Your task to perform on an android device: Go to location settings Image 0: 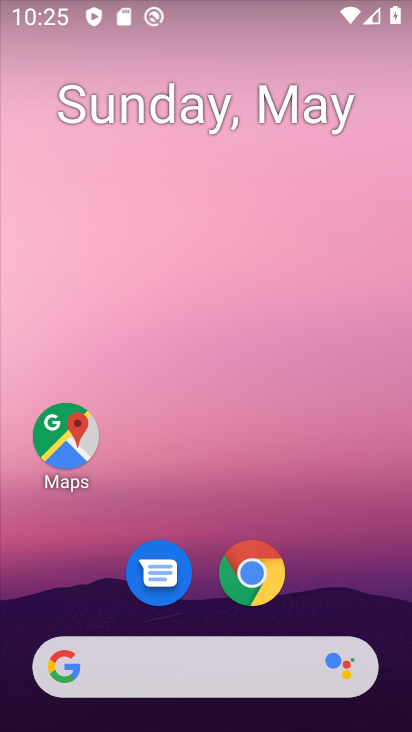
Step 0: drag from (331, 521) to (266, 76)
Your task to perform on an android device: Go to location settings Image 1: 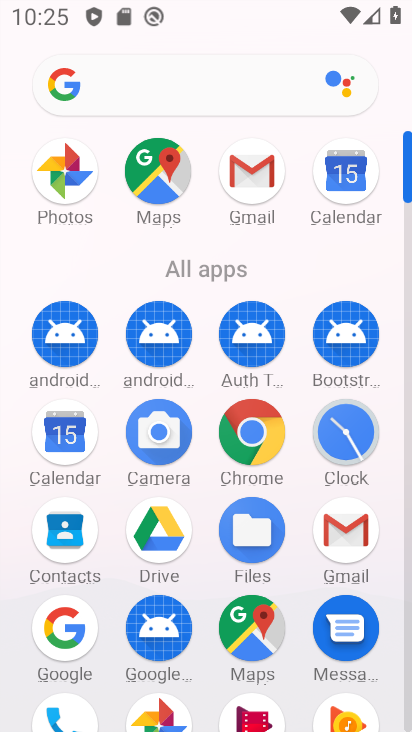
Step 1: drag from (220, 327) to (223, 196)
Your task to perform on an android device: Go to location settings Image 2: 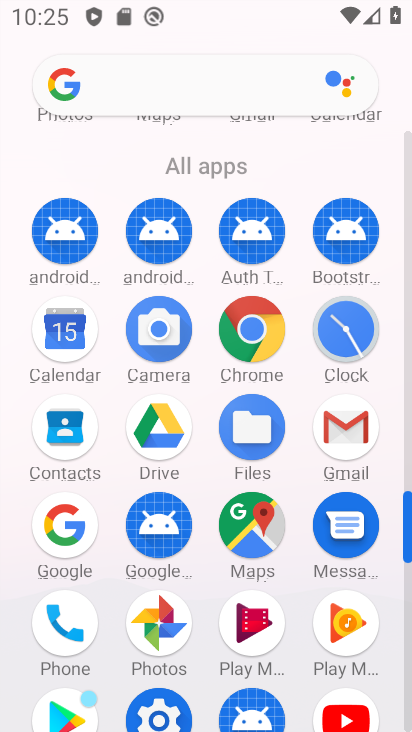
Step 2: click (172, 711)
Your task to perform on an android device: Go to location settings Image 3: 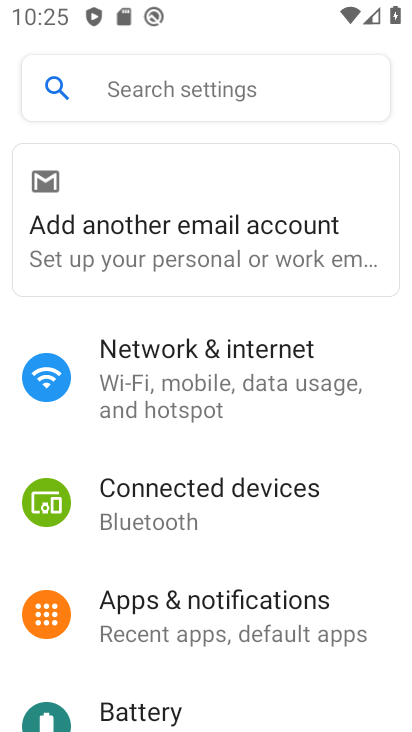
Step 3: drag from (238, 556) to (227, 159)
Your task to perform on an android device: Go to location settings Image 4: 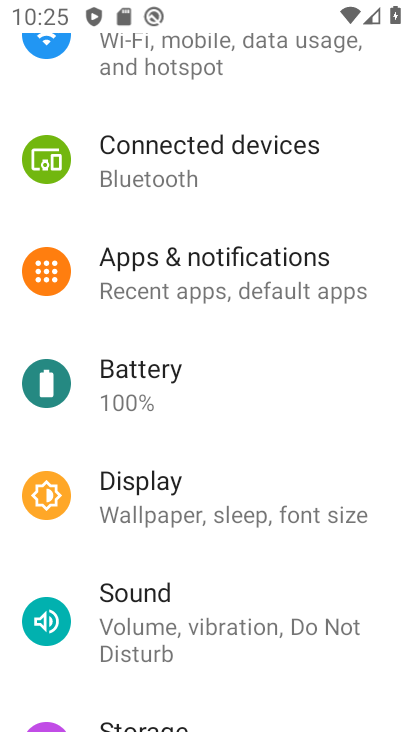
Step 4: click (250, 511)
Your task to perform on an android device: Go to location settings Image 5: 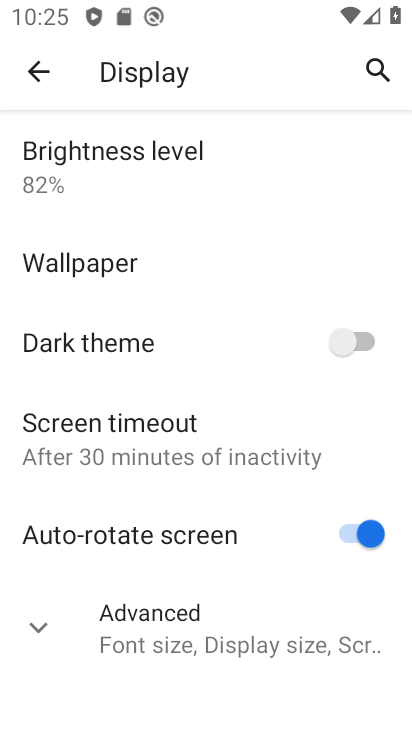
Step 5: click (42, 621)
Your task to perform on an android device: Go to location settings Image 6: 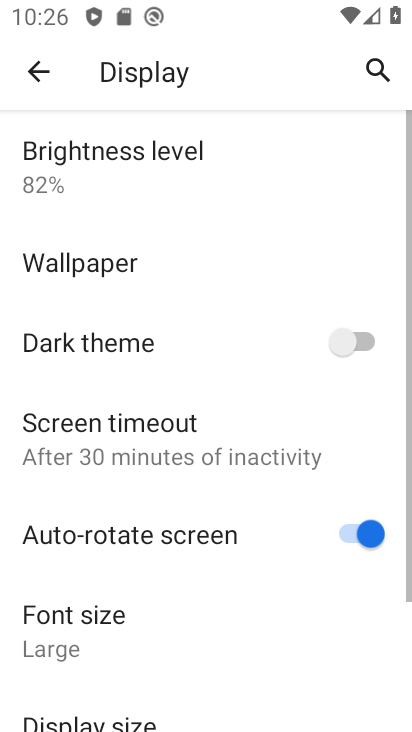
Step 6: drag from (209, 587) to (199, 315)
Your task to perform on an android device: Go to location settings Image 7: 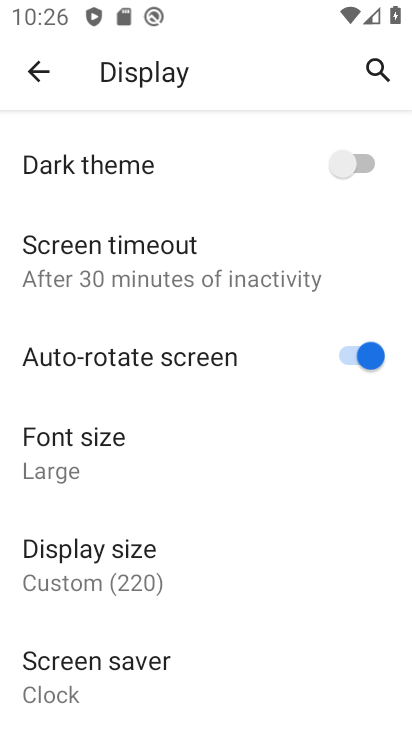
Step 7: click (118, 576)
Your task to perform on an android device: Go to location settings Image 8: 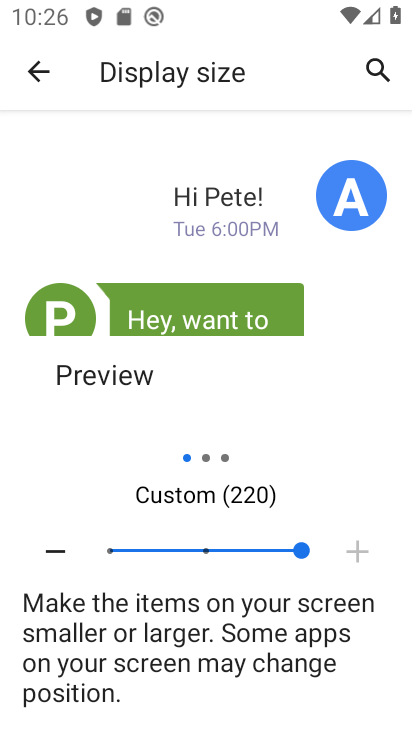
Step 8: click (55, 541)
Your task to perform on an android device: Go to location settings Image 9: 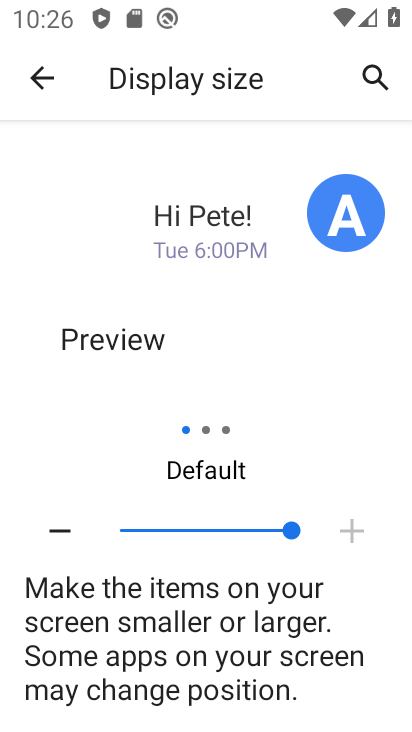
Step 9: click (63, 524)
Your task to perform on an android device: Go to location settings Image 10: 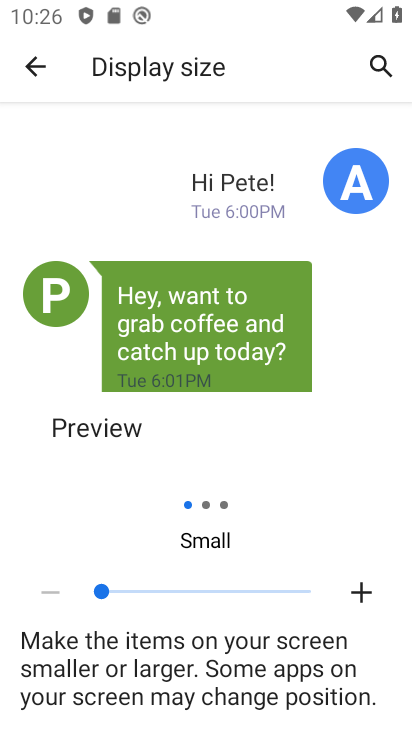
Step 10: click (32, 56)
Your task to perform on an android device: Go to location settings Image 11: 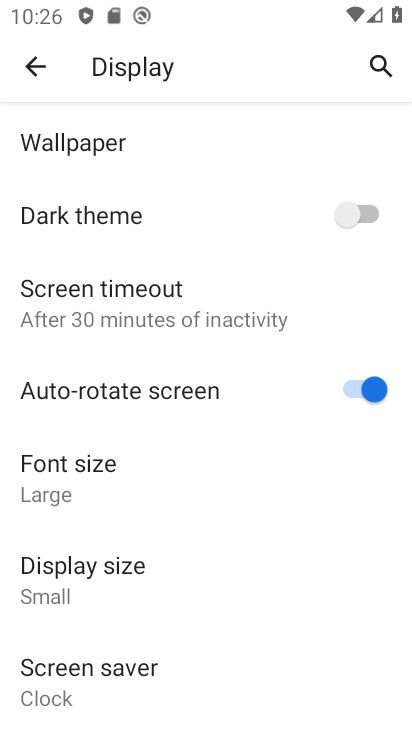
Step 11: click (32, 56)
Your task to perform on an android device: Go to location settings Image 12: 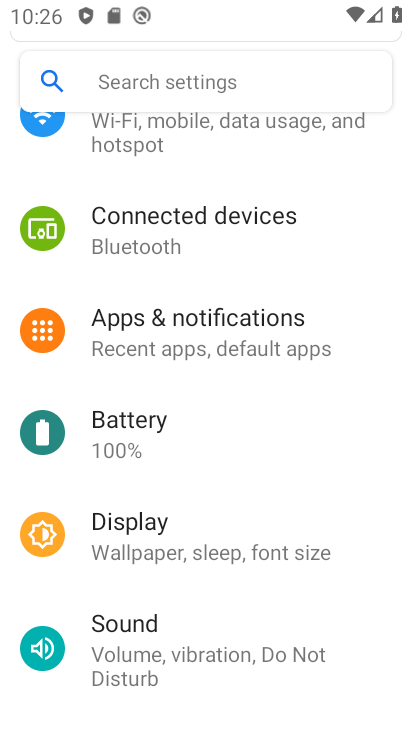
Step 12: drag from (222, 438) to (211, 100)
Your task to perform on an android device: Go to location settings Image 13: 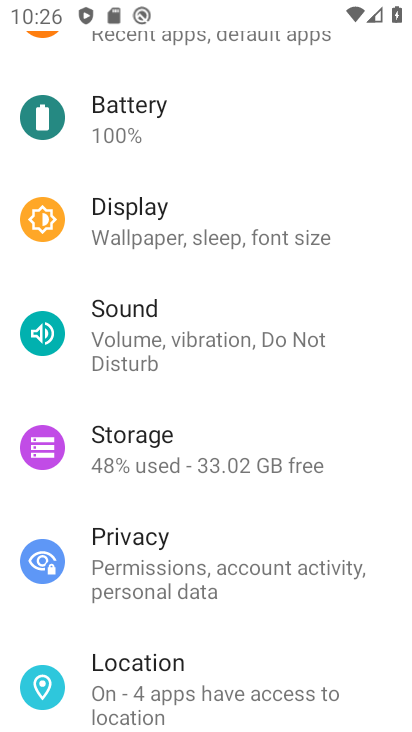
Step 13: click (218, 676)
Your task to perform on an android device: Go to location settings Image 14: 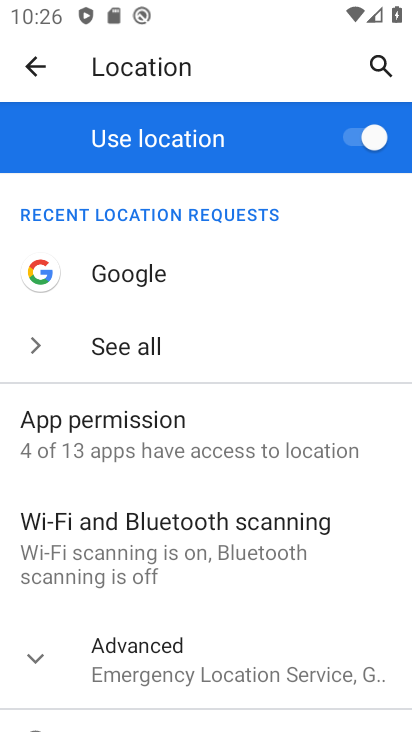
Step 14: task complete